Your task to perform on an android device: allow cookies in the chrome app Image 0: 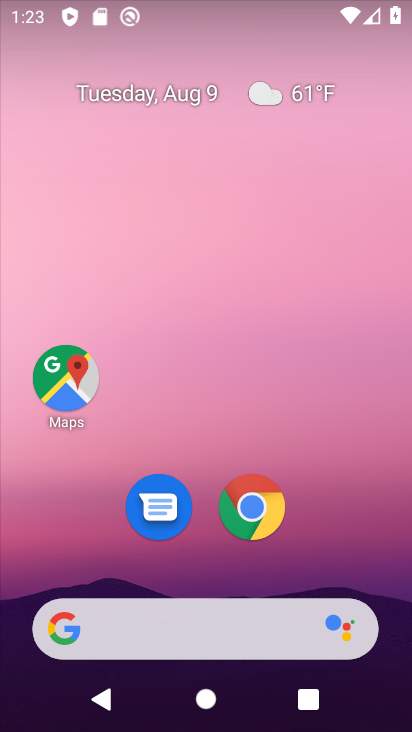
Step 0: click (249, 494)
Your task to perform on an android device: allow cookies in the chrome app Image 1: 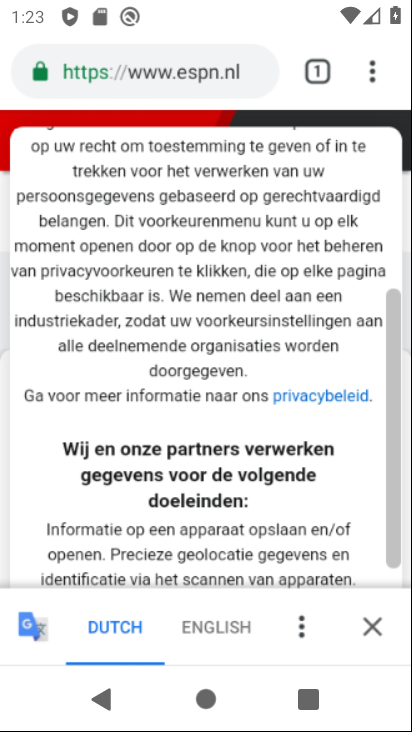
Step 1: click (371, 59)
Your task to perform on an android device: allow cookies in the chrome app Image 2: 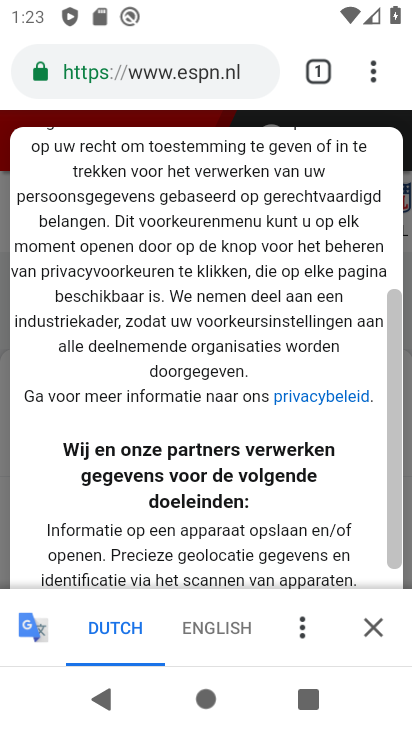
Step 2: drag from (373, 82) to (149, 494)
Your task to perform on an android device: allow cookies in the chrome app Image 3: 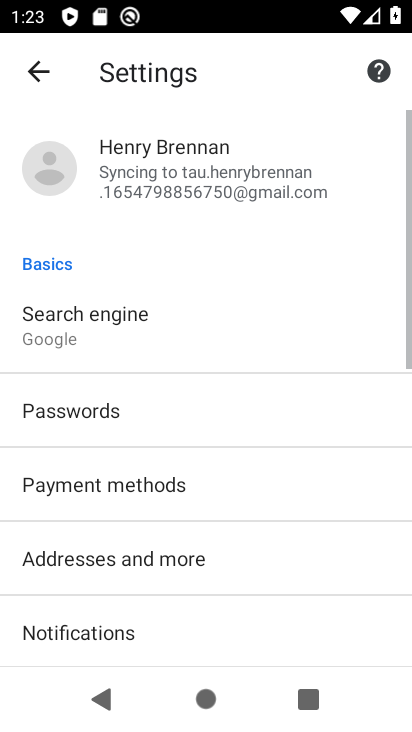
Step 3: drag from (106, 619) to (229, 104)
Your task to perform on an android device: allow cookies in the chrome app Image 4: 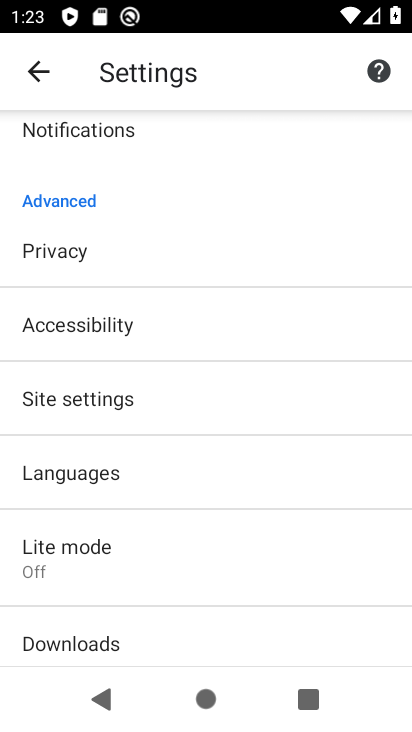
Step 4: click (71, 387)
Your task to perform on an android device: allow cookies in the chrome app Image 5: 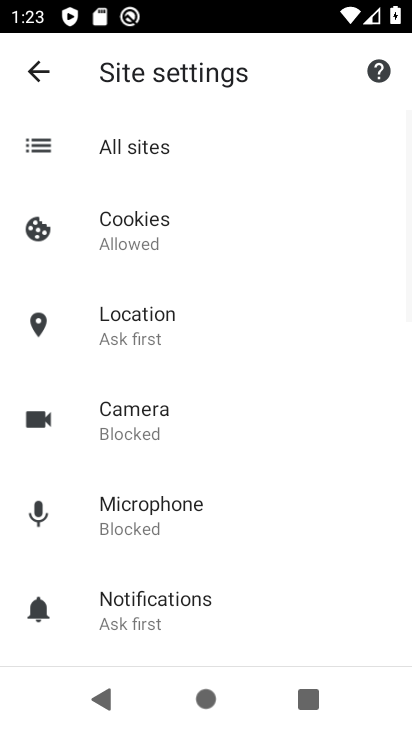
Step 5: click (167, 228)
Your task to perform on an android device: allow cookies in the chrome app Image 6: 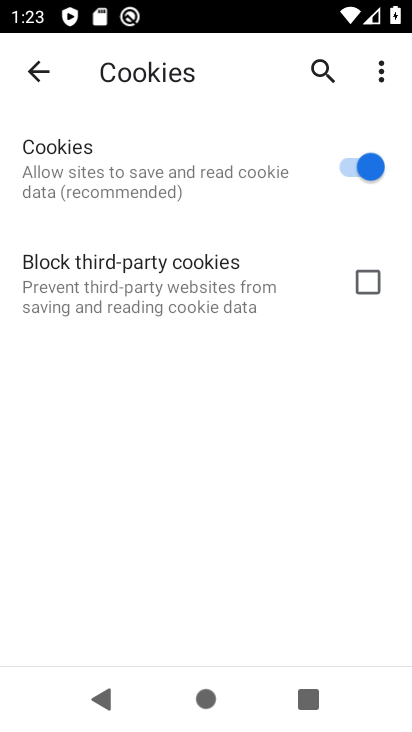
Step 6: task complete